Your task to perform on an android device: check android version Image 0: 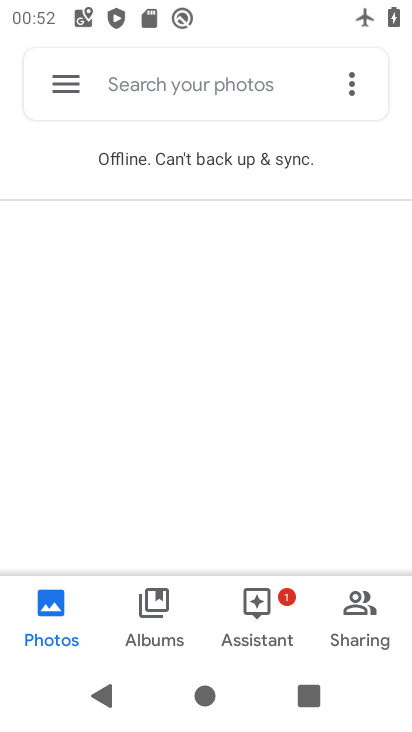
Step 0: press home button
Your task to perform on an android device: check android version Image 1: 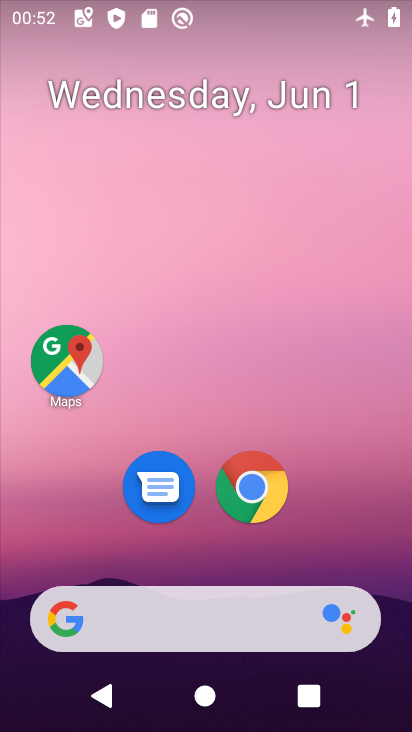
Step 1: drag from (310, 507) to (314, 230)
Your task to perform on an android device: check android version Image 2: 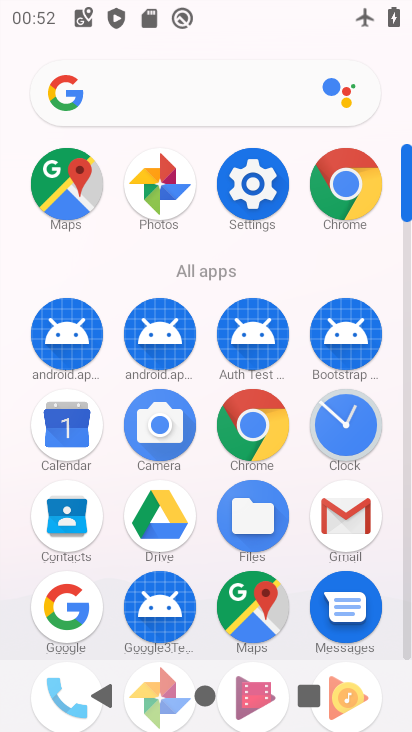
Step 2: click (254, 178)
Your task to perform on an android device: check android version Image 3: 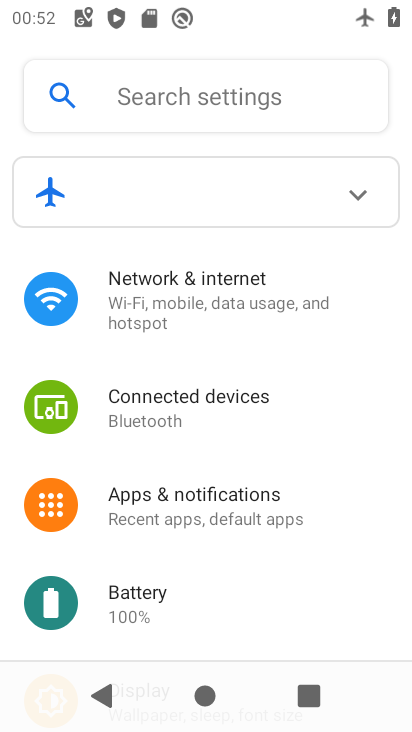
Step 3: drag from (240, 602) to (274, 166)
Your task to perform on an android device: check android version Image 4: 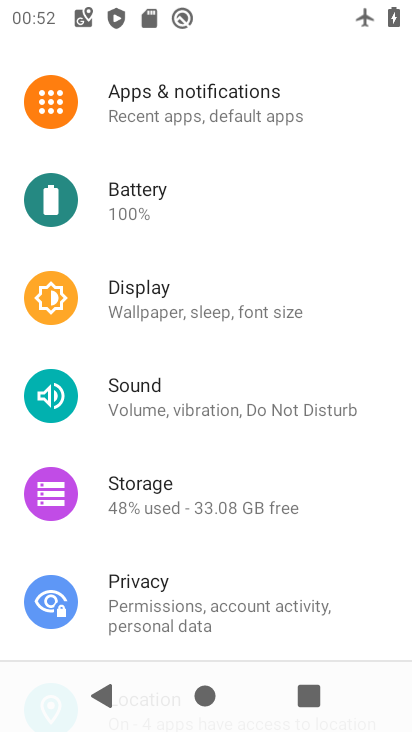
Step 4: drag from (243, 574) to (288, 222)
Your task to perform on an android device: check android version Image 5: 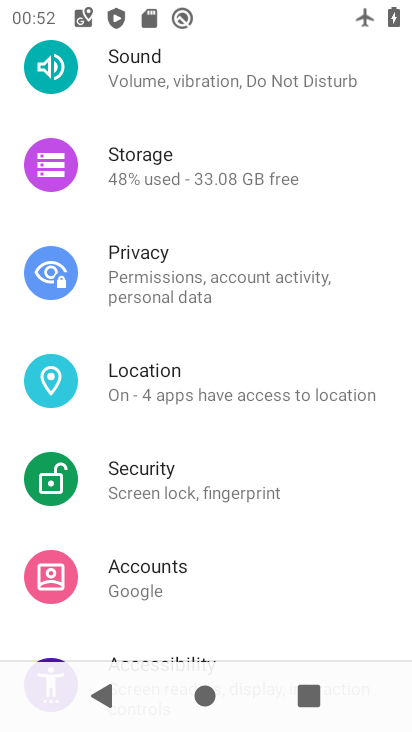
Step 5: drag from (224, 507) to (264, 149)
Your task to perform on an android device: check android version Image 6: 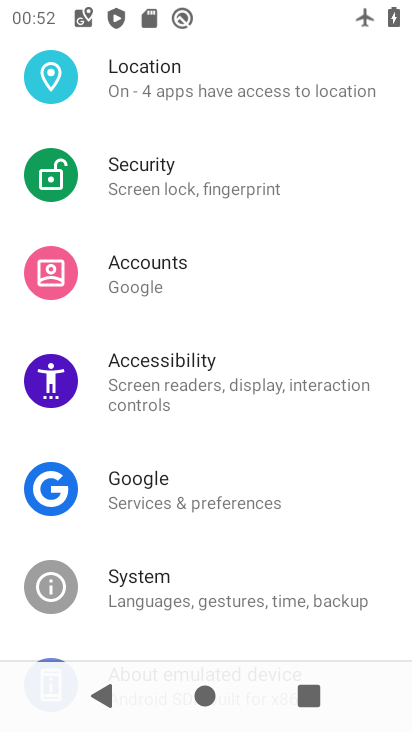
Step 6: drag from (212, 574) to (241, 245)
Your task to perform on an android device: check android version Image 7: 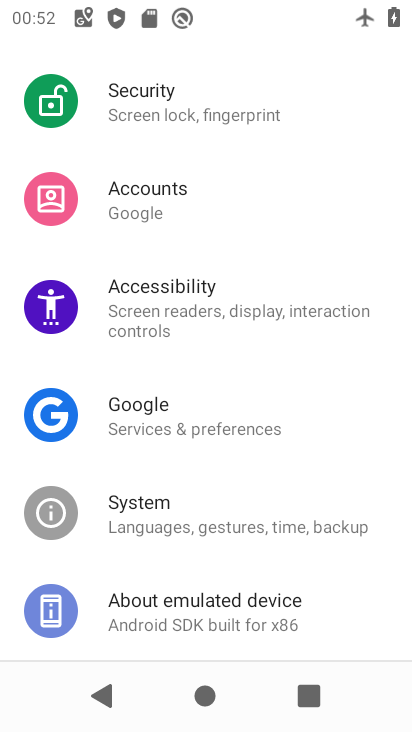
Step 7: click (175, 597)
Your task to perform on an android device: check android version Image 8: 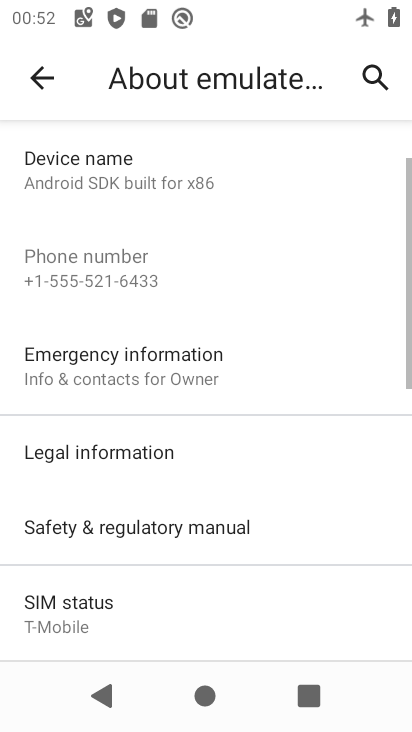
Step 8: task complete